Your task to perform on an android device: Open settings on Google Maps Image 0: 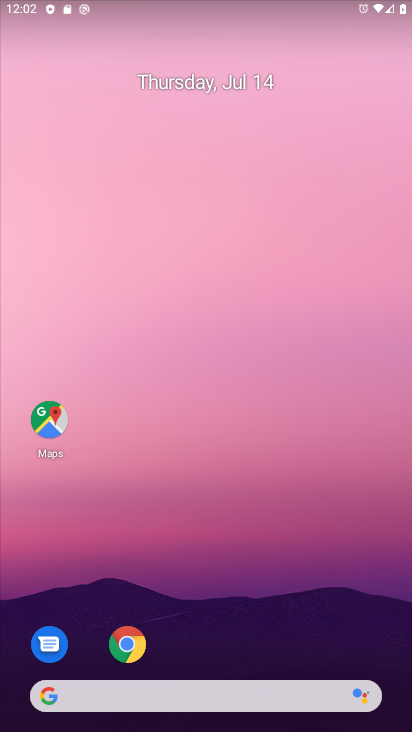
Step 0: drag from (206, 665) to (148, 226)
Your task to perform on an android device: Open settings on Google Maps Image 1: 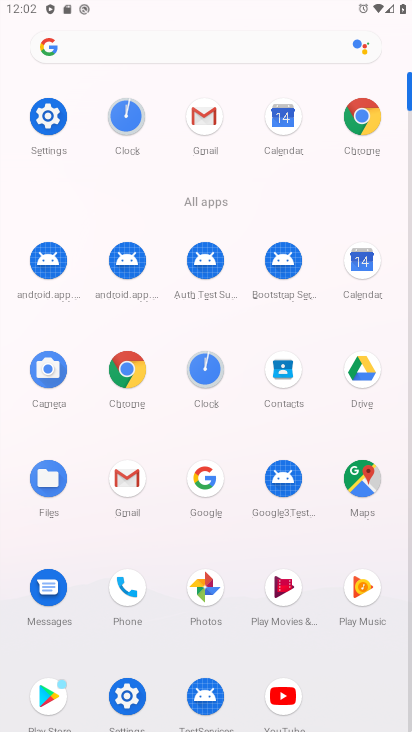
Step 1: click (361, 471)
Your task to perform on an android device: Open settings on Google Maps Image 2: 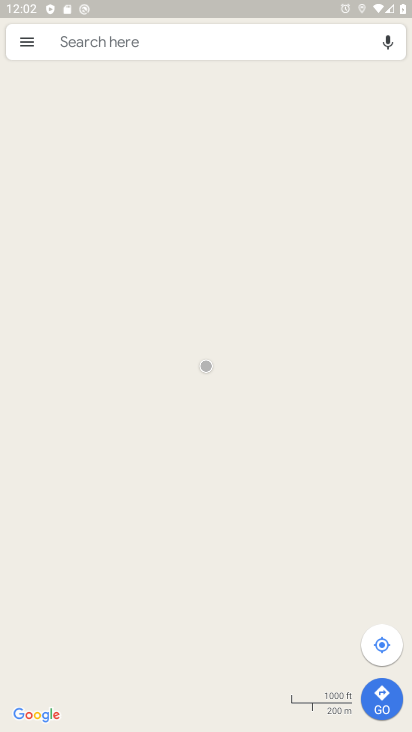
Step 2: click (30, 34)
Your task to perform on an android device: Open settings on Google Maps Image 3: 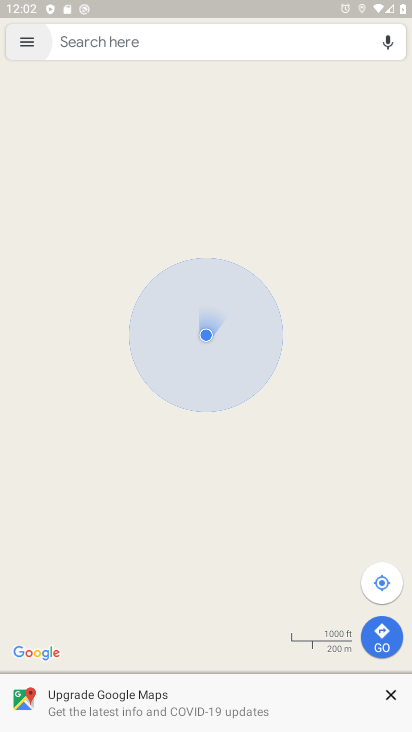
Step 3: click (30, 34)
Your task to perform on an android device: Open settings on Google Maps Image 4: 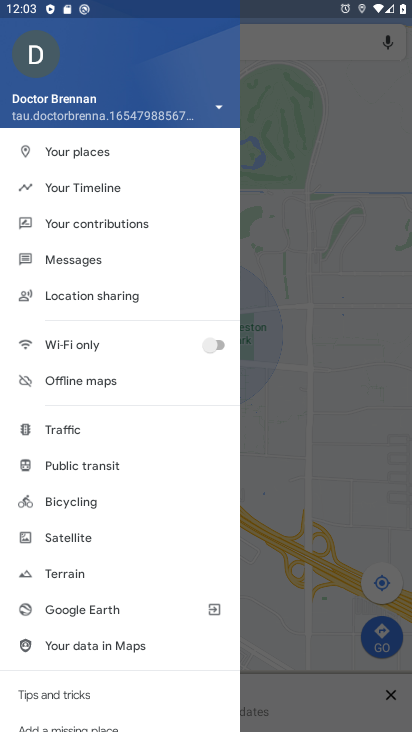
Step 4: drag from (63, 537) to (87, 160)
Your task to perform on an android device: Open settings on Google Maps Image 5: 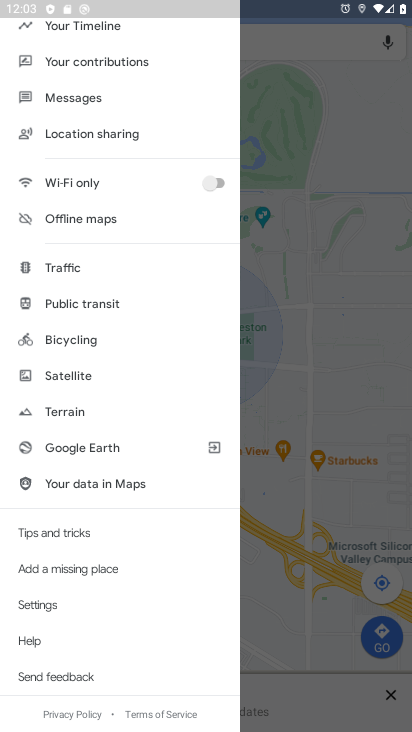
Step 5: click (41, 598)
Your task to perform on an android device: Open settings on Google Maps Image 6: 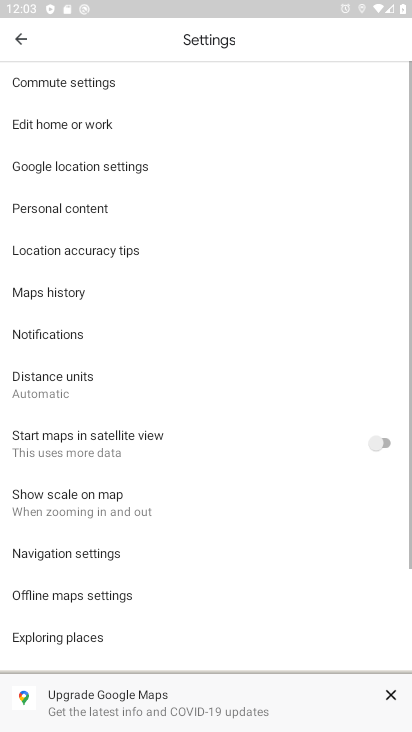
Step 6: task complete